Your task to perform on an android device: Open ESPN.com Image 0: 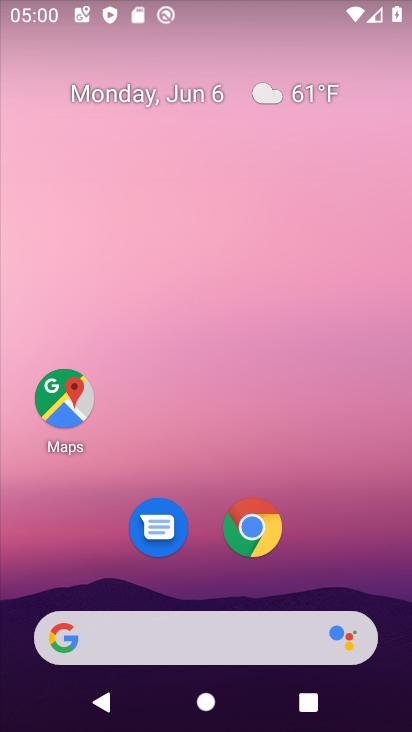
Step 0: click (243, 523)
Your task to perform on an android device: Open ESPN.com Image 1: 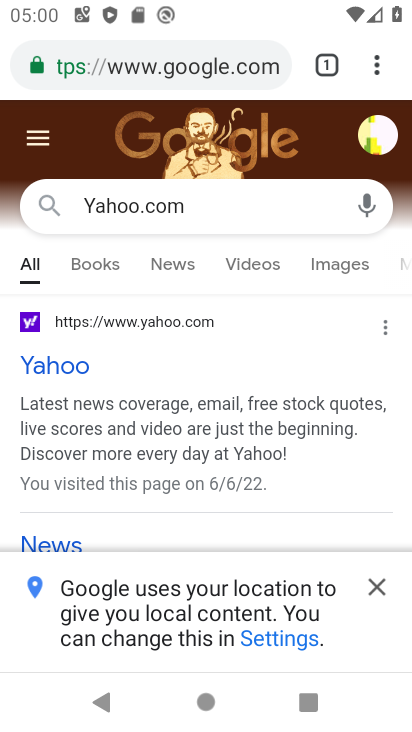
Step 1: click (272, 62)
Your task to perform on an android device: Open ESPN.com Image 2: 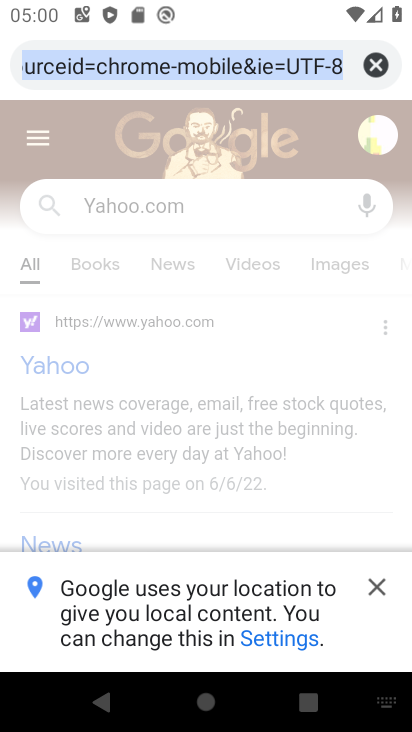
Step 2: click (373, 62)
Your task to perform on an android device: Open ESPN.com Image 3: 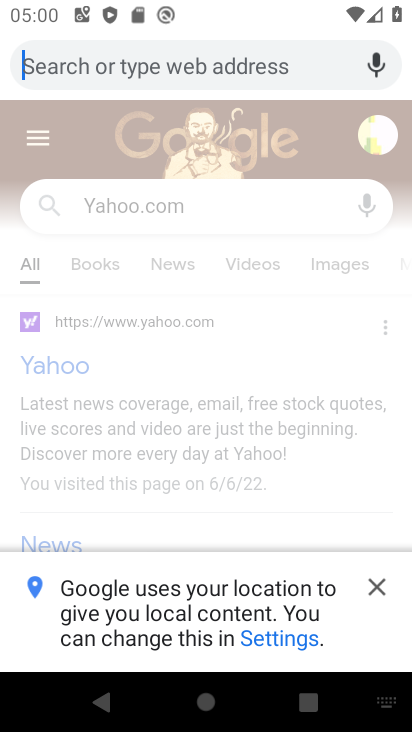
Step 3: type "ESPN.com"
Your task to perform on an android device: Open ESPN.com Image 4: 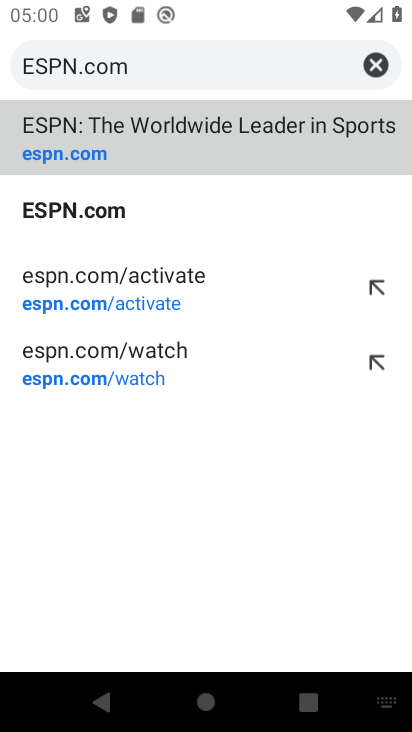
Step 4: click (110, 202)
Your task to perform on an android device: Open ESPN.com Image 5: 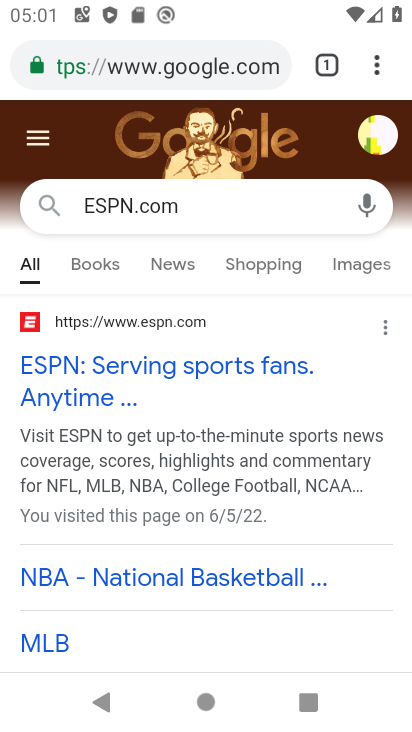
Step 5: task complete